Your task to perform on an android device: How much does a 3 bedroom apartment rent for in Philadelphia? Image 0: 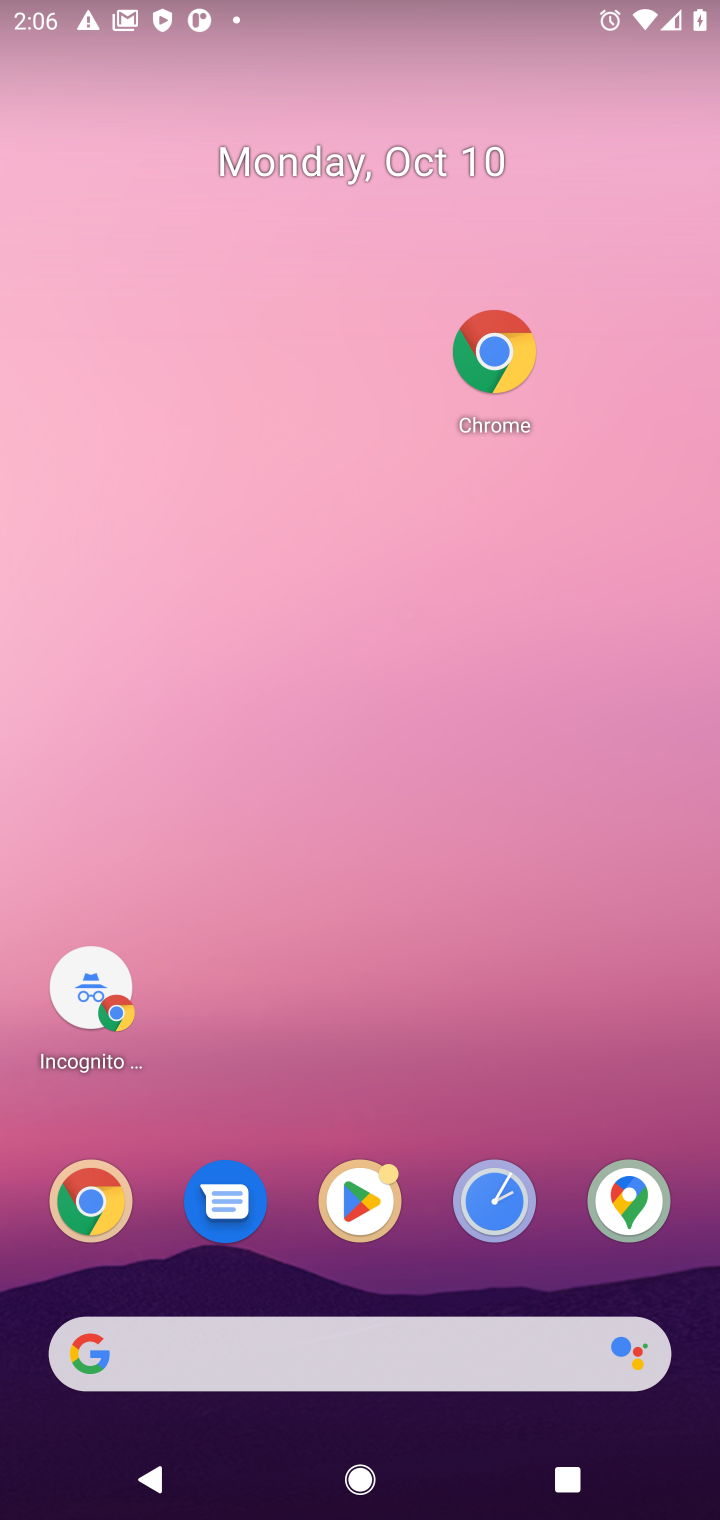
Step 0: click (504, 364)
Your task to perform on an android device: How much does a 3 bedroom apartment rent for in Philadelphia? Image 1: 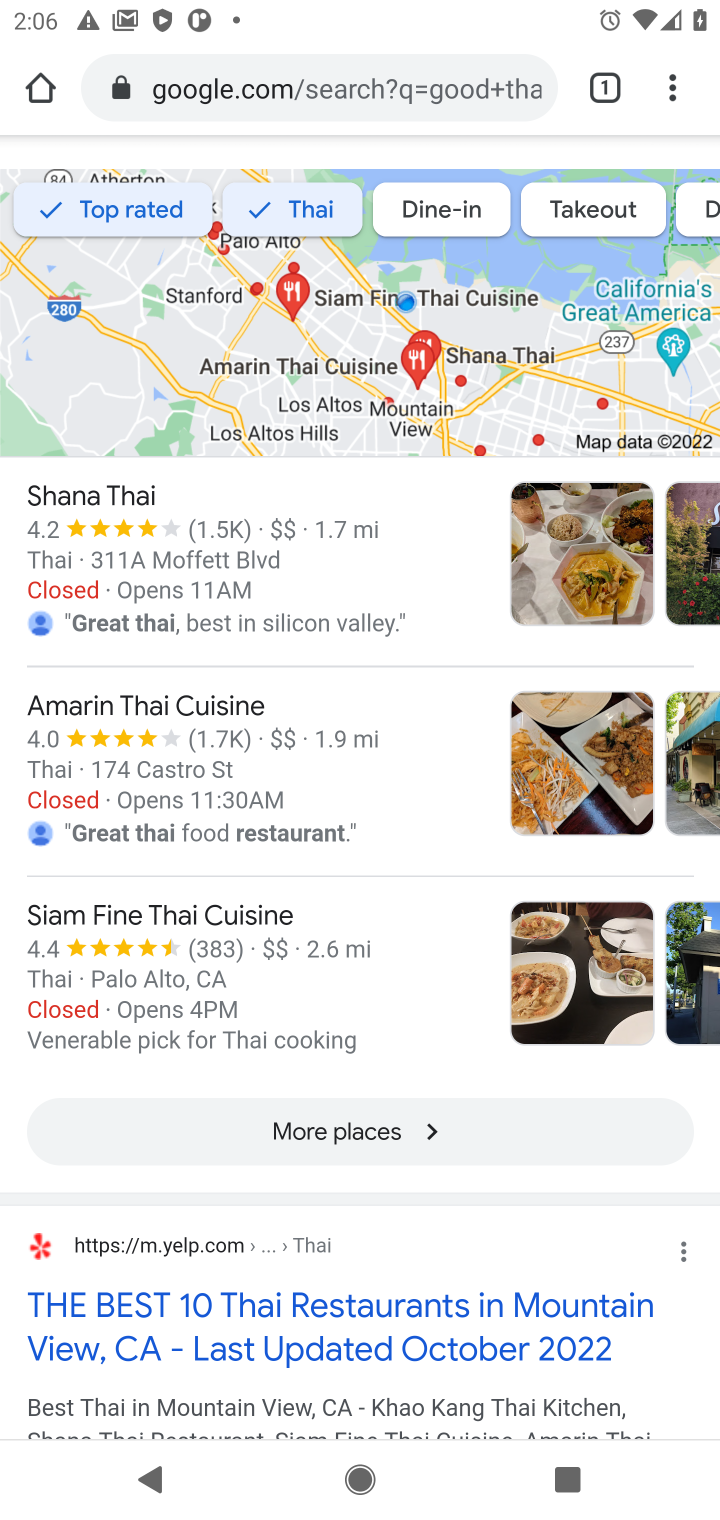
Step 1: click (295, 88)
Your task to perform on an android device: How much does a 3 bedroom apartment rent for in Philadelphia? Image 2: 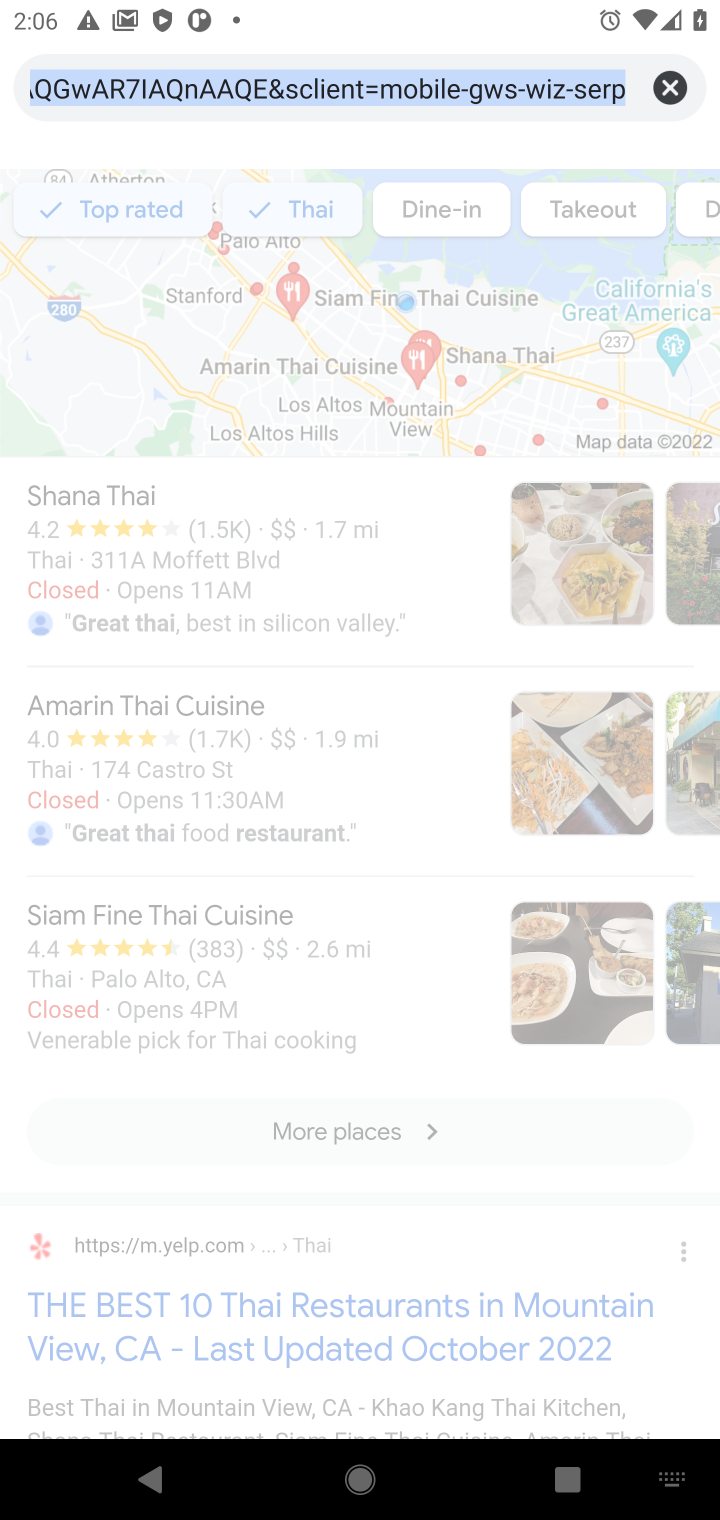
Step 2: click (664, 79)
Your task to perform on an android device: How much does a 3 bedroom apartment rent for in Philadelphia? Image 3: 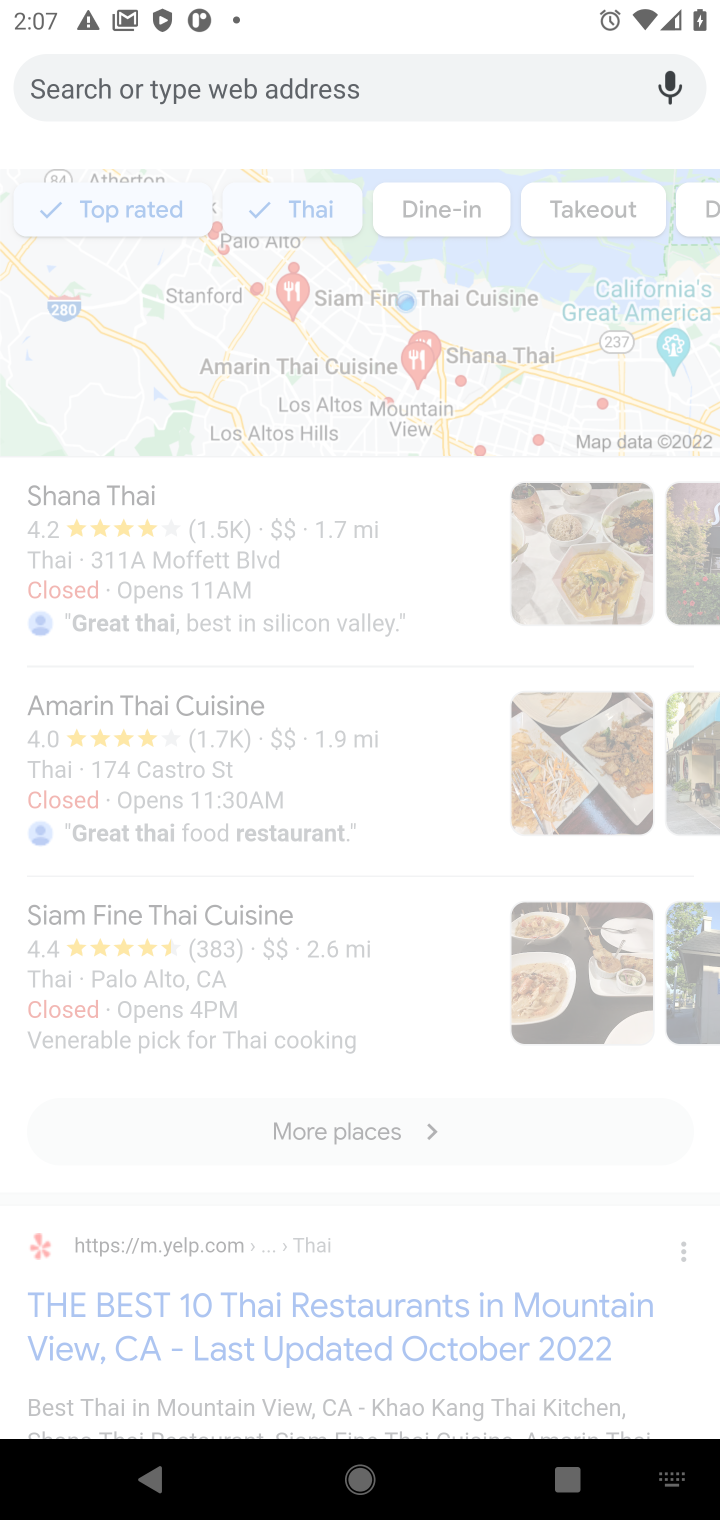
Step 3: type "rent  for 3 bedroom apartment in philadelphia"
Your task to perform on an android device: How much does a 3 bedroom apartment rent for in Philadelphia? Image 4: 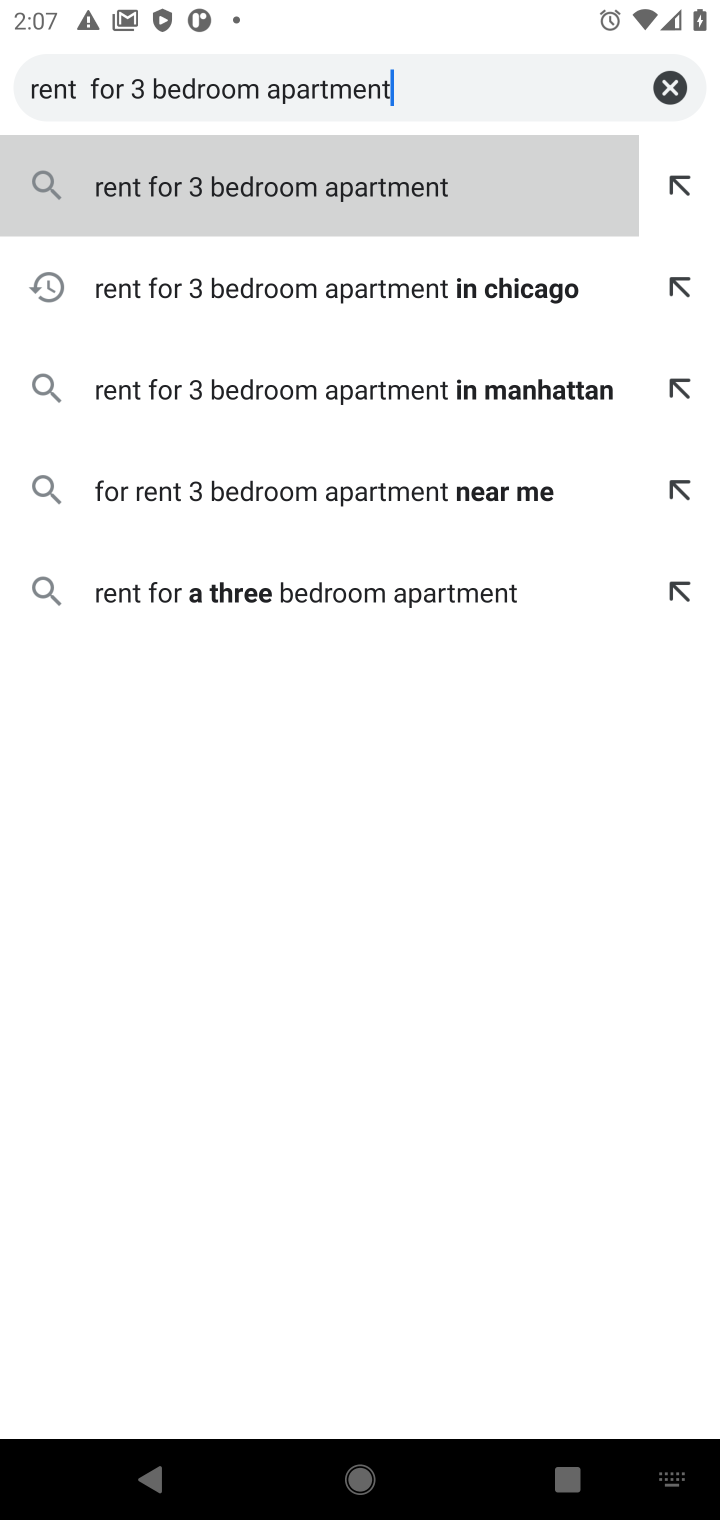
Step 4: type " in philadelphia"
Your task to perform on an android device: How much does a 3 bedroom apartment rent for in Philadelphia? Image 5: 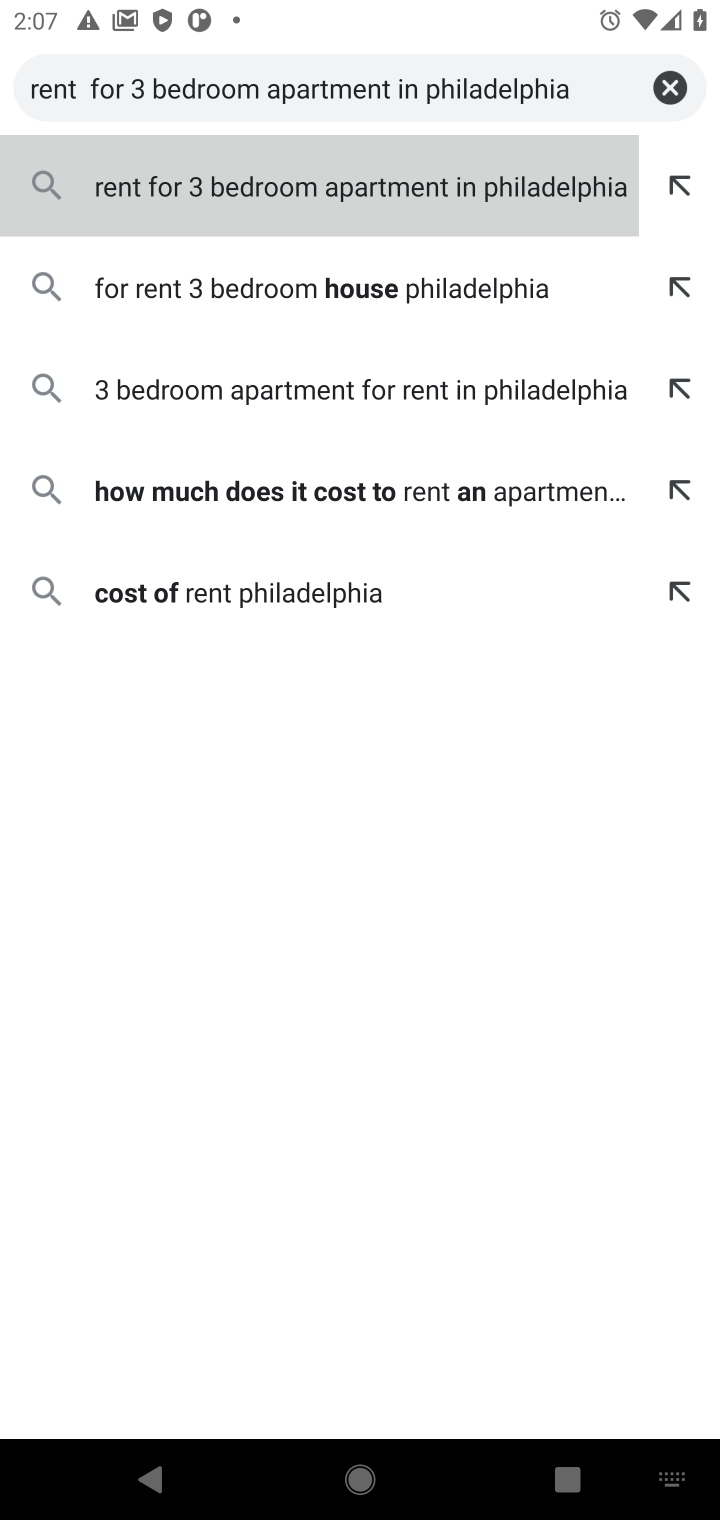
Step 5: click (306, 194)
Your task to perform on an android device: How much does a 3 bedroom apartment rent for in Philadelphia? Image 6: 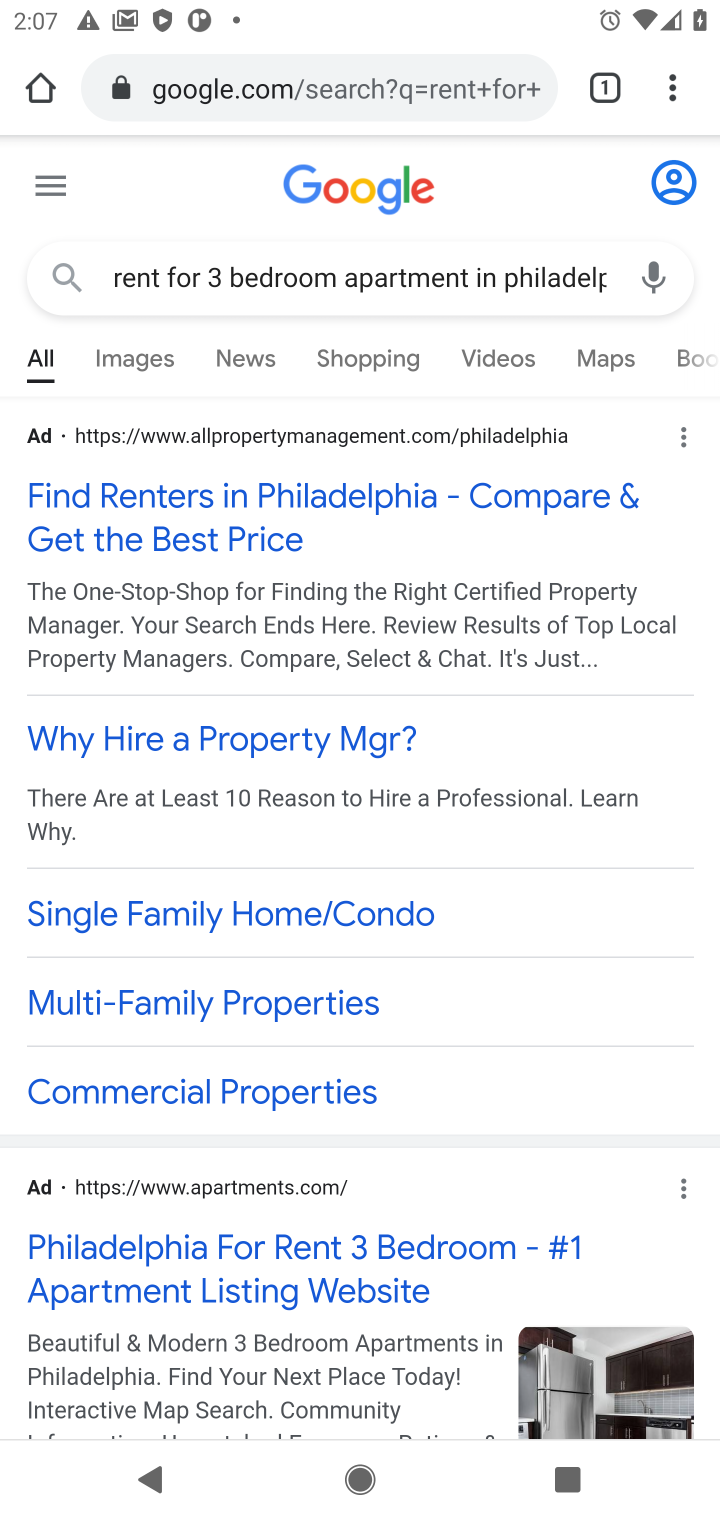
Step 6: click (176, 505)
Your task to perform on an android device: How much does a 3 bedroom apartment rent for in Philadelphia? Image 7: 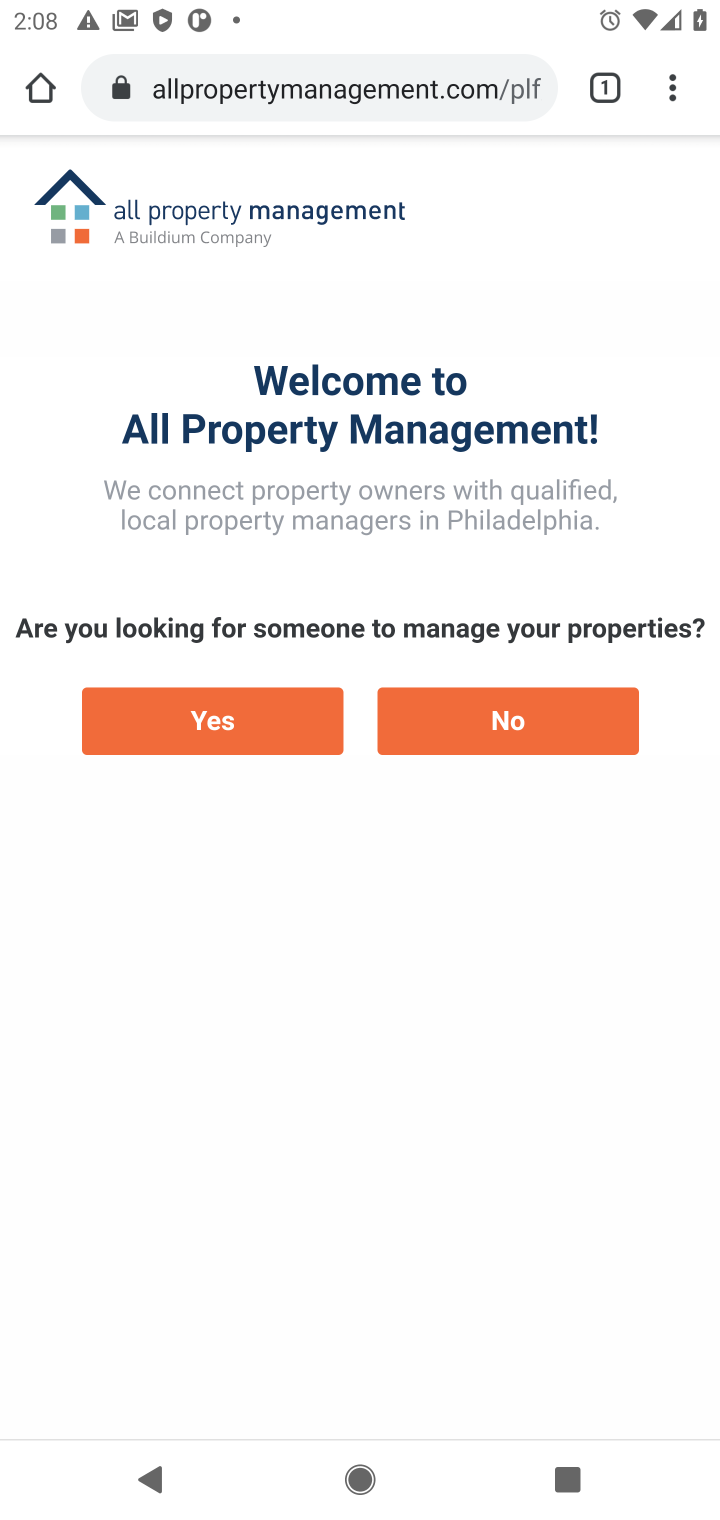
Step 7: drag from (218, 515) to (199, 259)
Your task to perform on an android device: How much does a 3 bedroom apartment rent for in Philadelphia? Image 8: 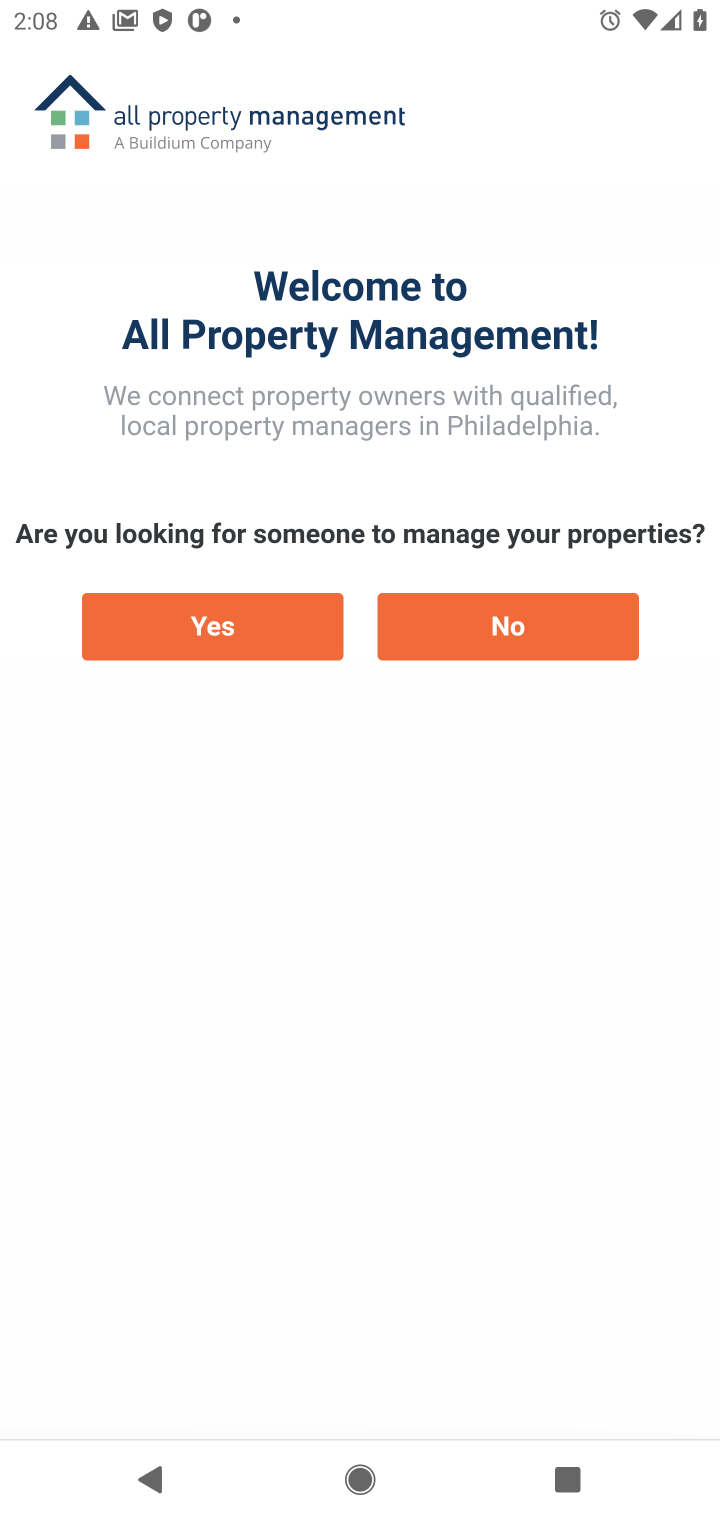
Step 8: drag from (293, 922) to (277, 320)
Your task to perform on an android device: How much does a 3 bedroom apartment rent for in Philadelphia? Image 9: 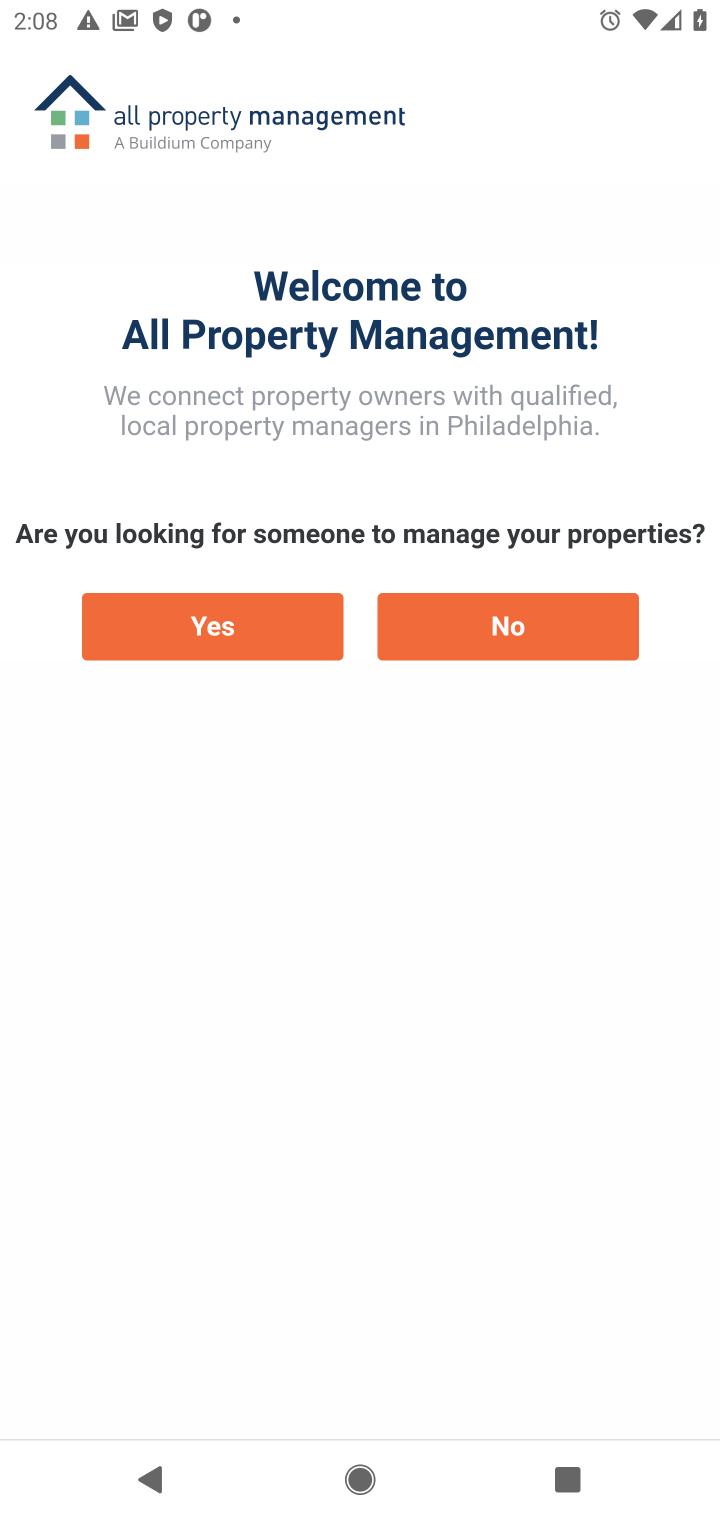
Step 9: drag from (274, 312) to (298, 1042)
Your task to perform on an android device: How much does a 3 bedroom apartment rent for in Philadelphia? Image 10: 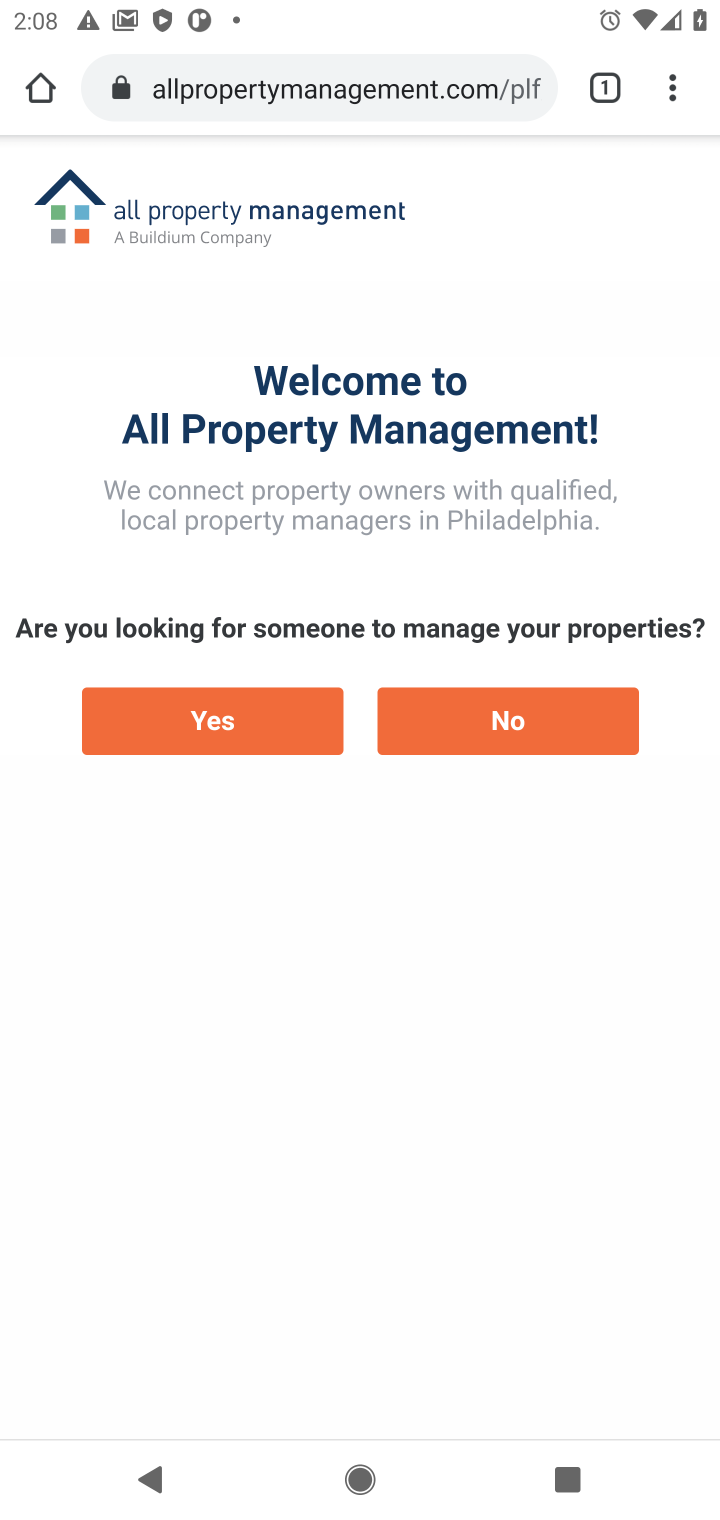
Step 10: press back button
Your task to perform on an android device: How much does a 3 bedroom apartment rent for in Philadelphia? Image 11: 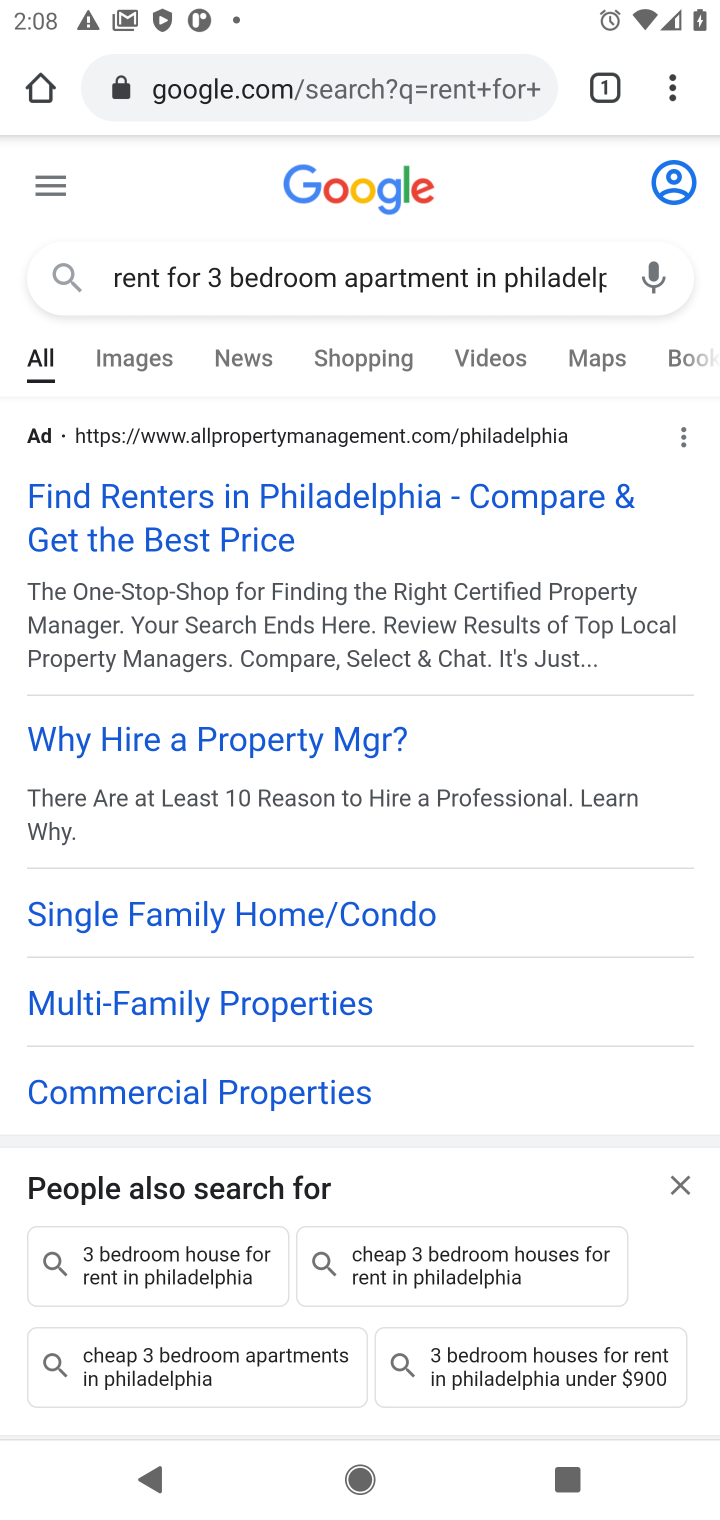
Step 11: drag from (275, 745) to (261, 391)
Your task to perform on an android device: How much does a 3 bedroom apartment rent for in Philadelphia? Image 12: 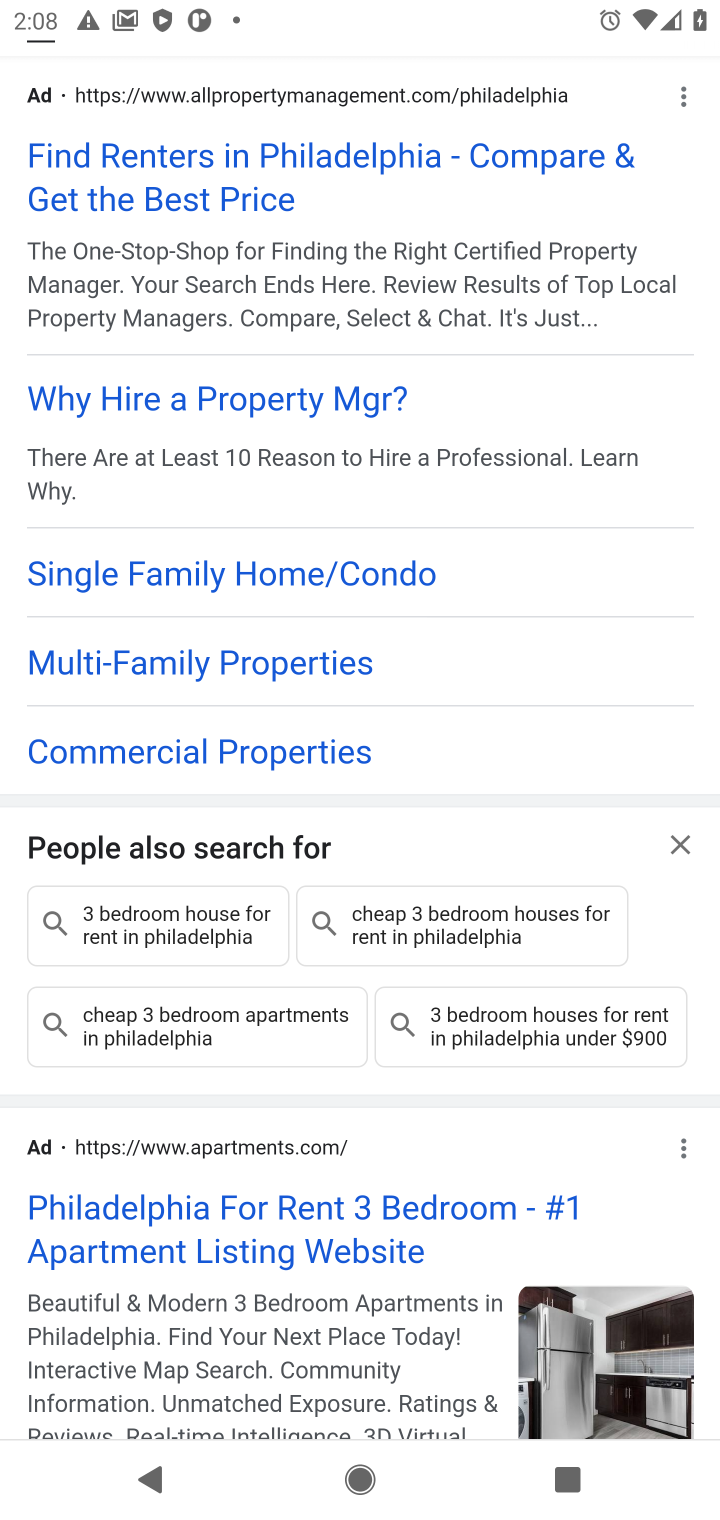
Step 12: click (160, 1248)
Your task to perform on an android device: How much does a 3 bedroom apartment rent for in Philadelphia? Image 13: 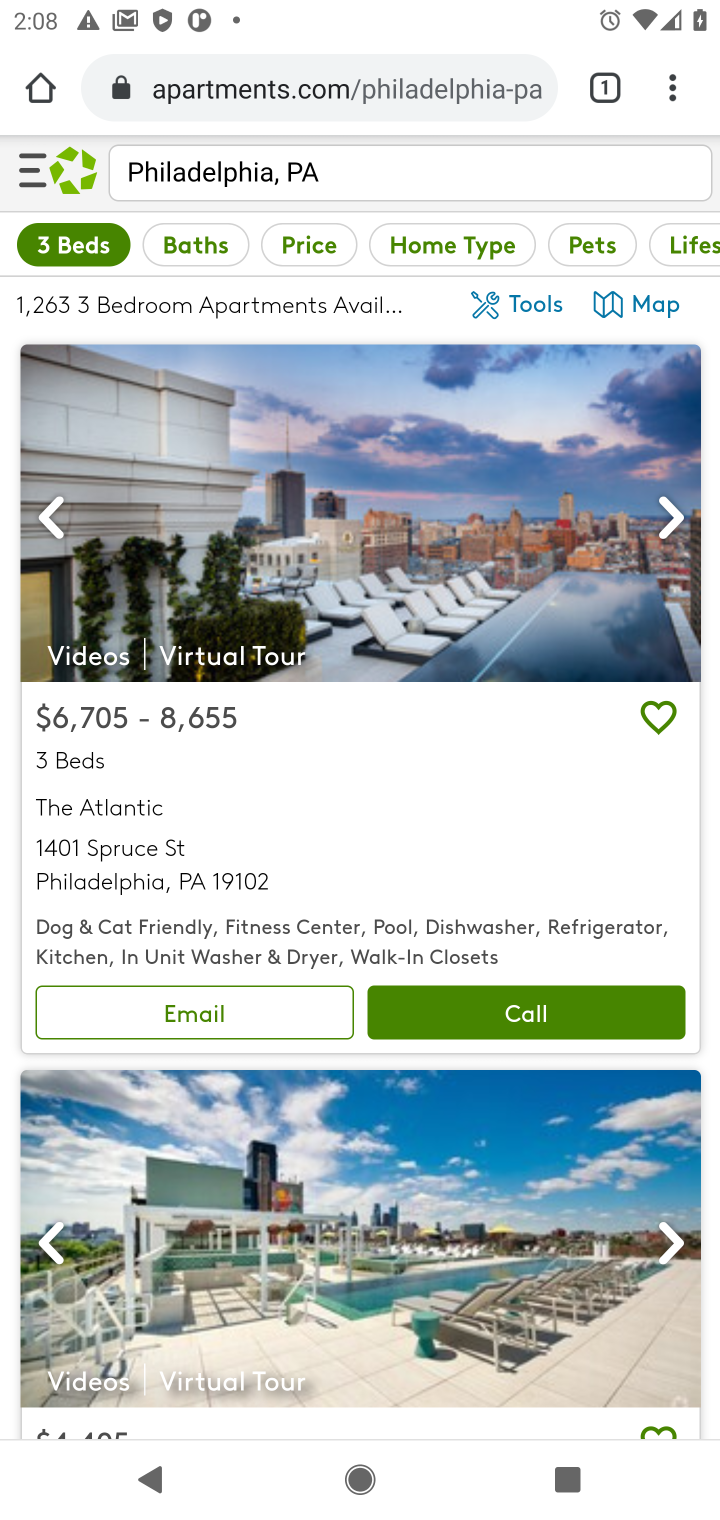
Step 13: task complete